Your task to perform on an android device: Go to sound settings Image 0: 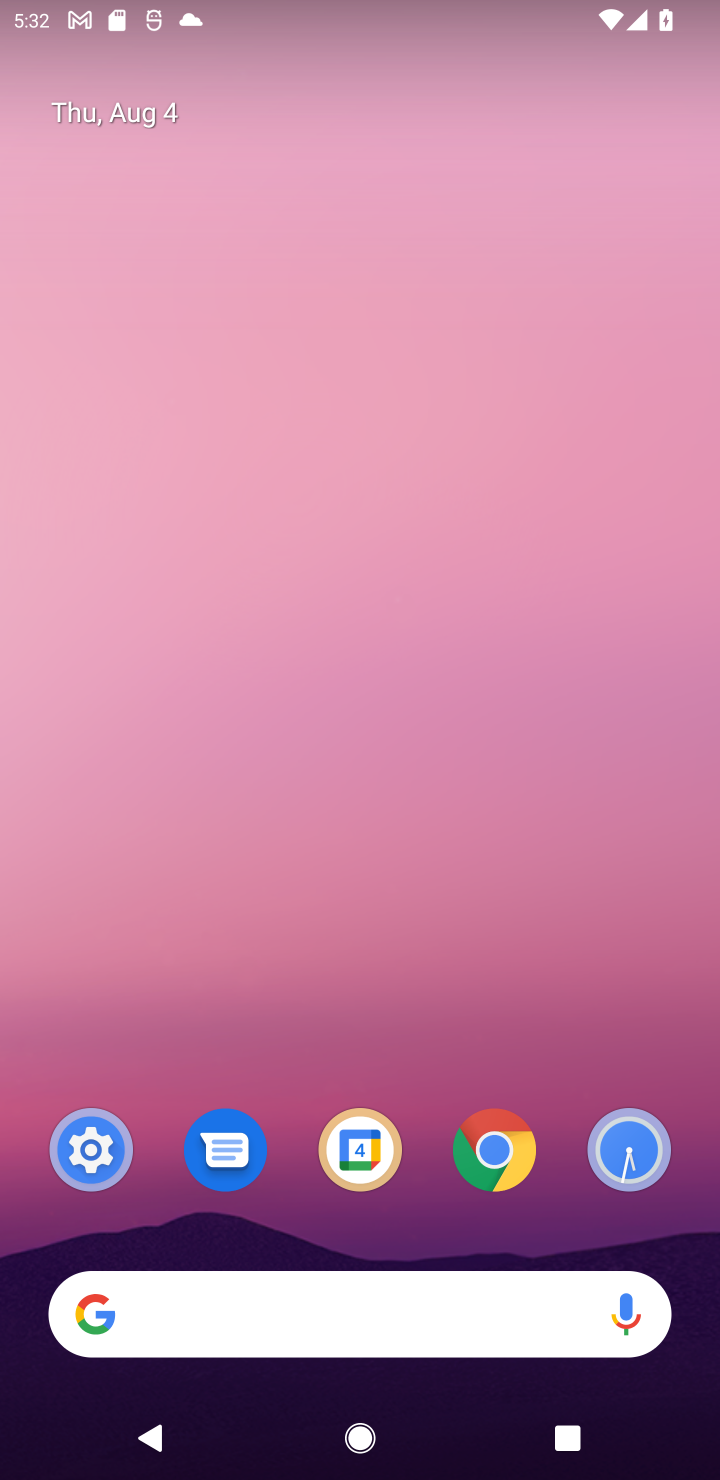
Step 0: drag from (290, 1232) to (373, 107)
Your task to perform on an android device: Go to sound settings Image 1: 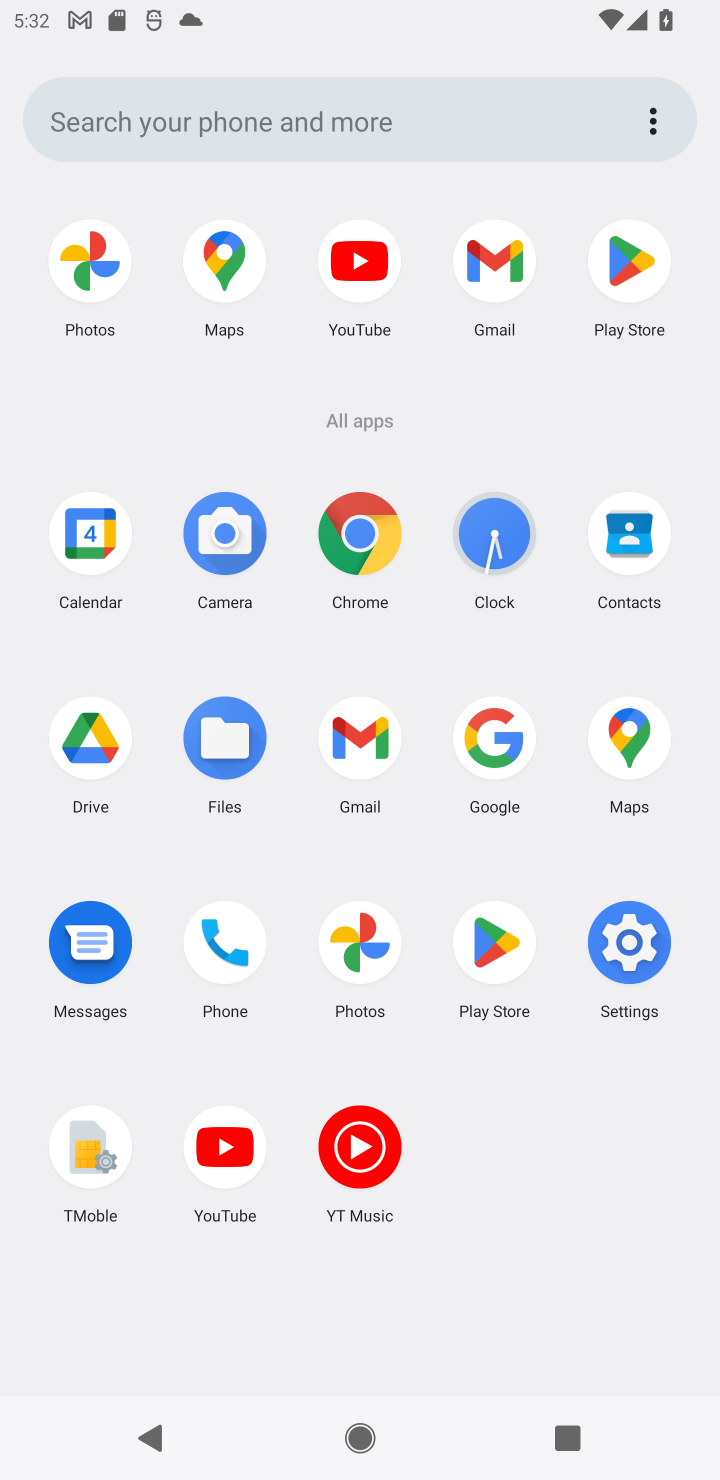
Step 1: click (621, 932)
Your task to perform on an android device: Go to sound settings Image 2: 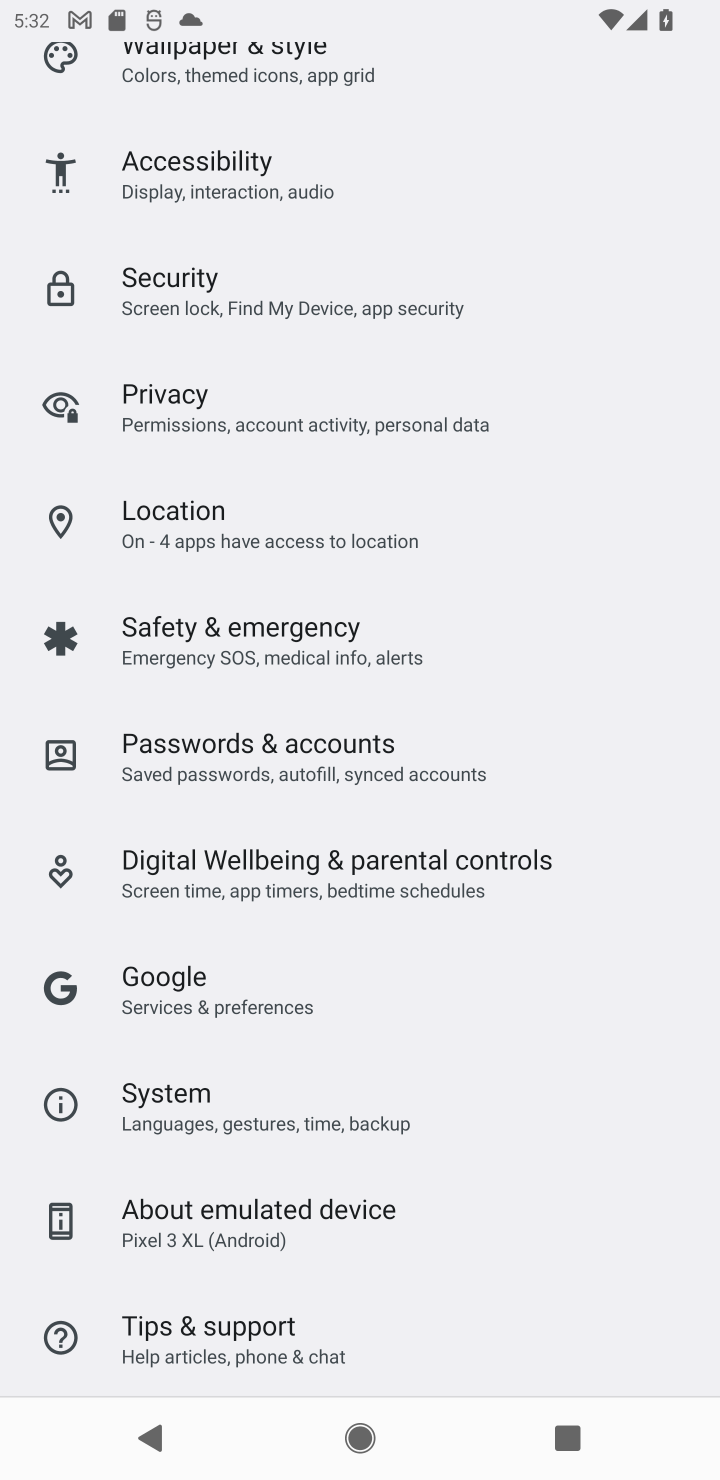
Step 2: drag from (296, 268) to (341, 1085)
Your task to perform on an android device: Go to sound settings Image 3: 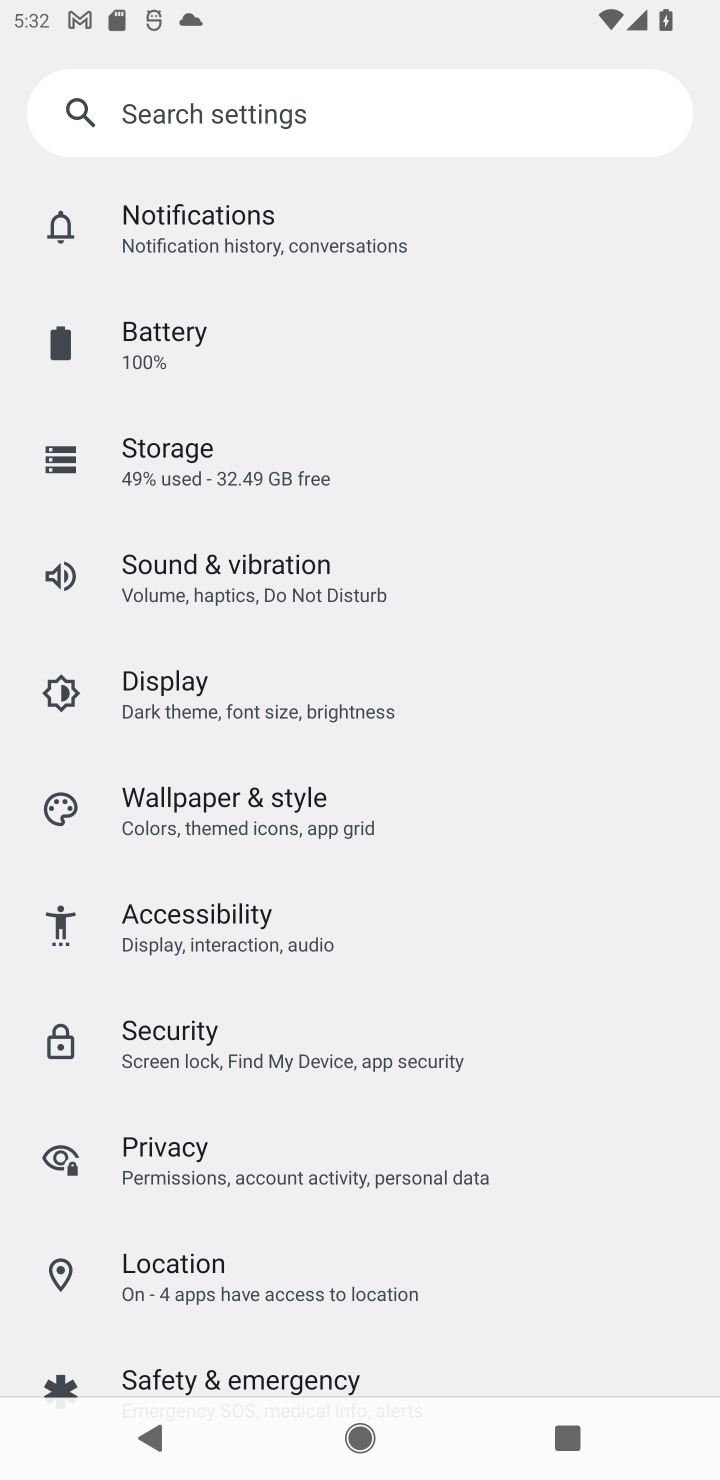
Step 3: click (268, 573)
Your task to perform on an android device: Go to sound settings Image 4: 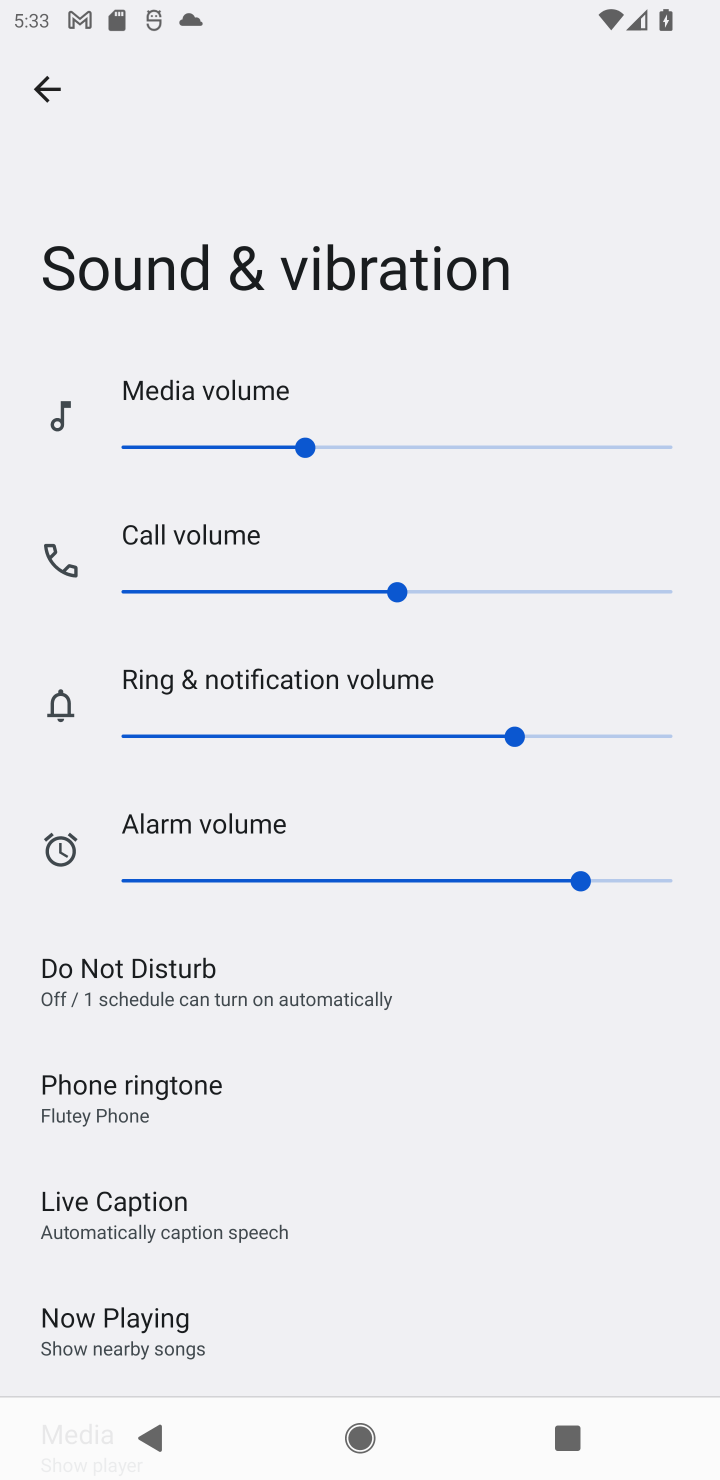
Step 4: drag from (288, 1012) to (342, 521)
Your task to perform on an android device: Go to sound settings Image 5: 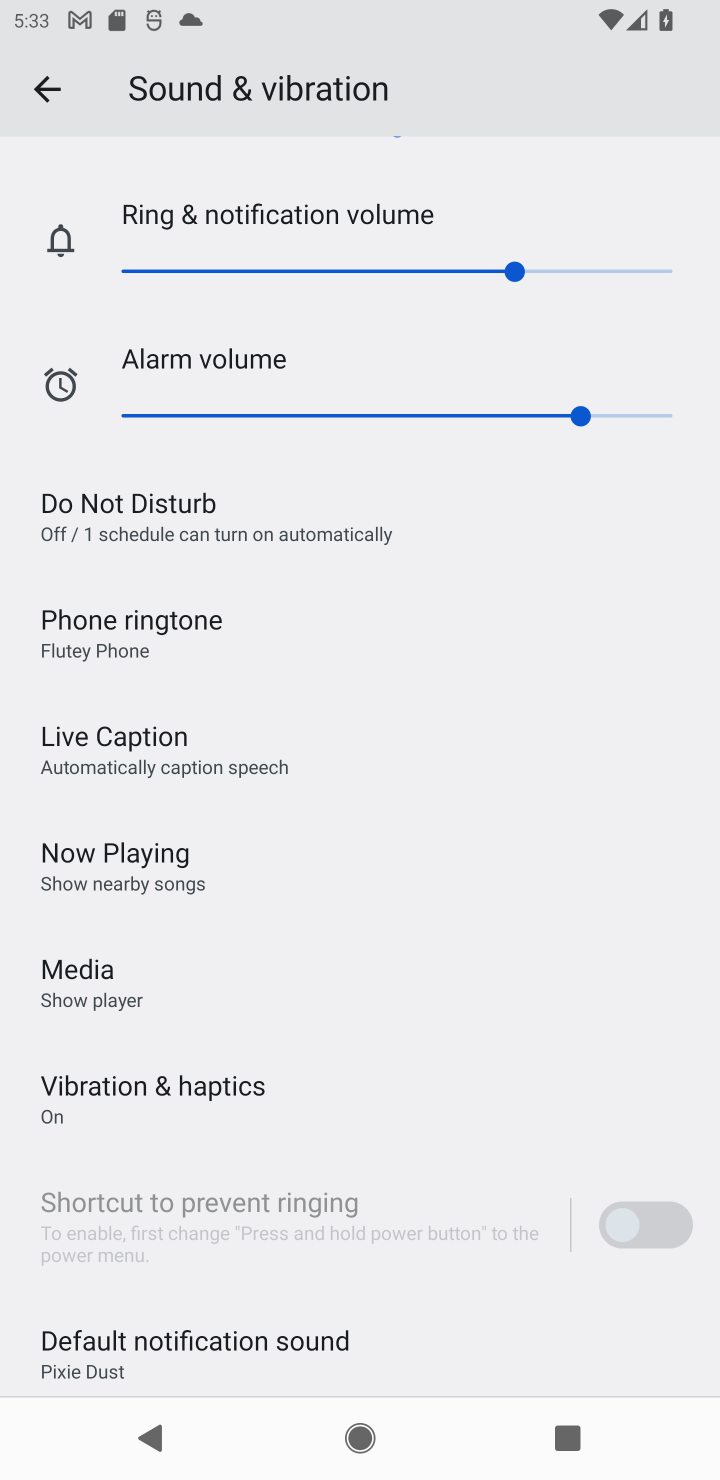
Step 5: drag from (310, 918) to (331, 390)
Your task to perform on an android device: Go to sound settings Image 6: 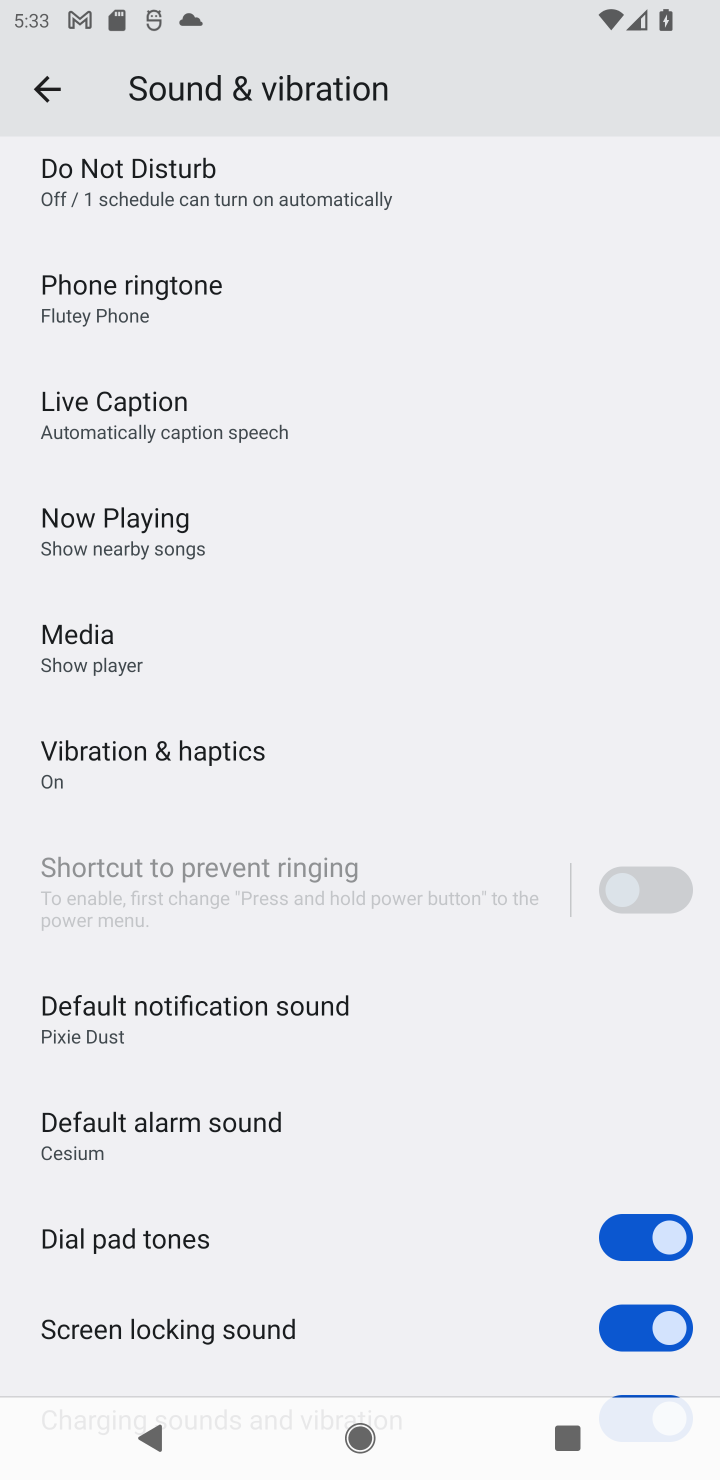
Step 6: click (327, 416)
Your task to perform on an android device: Go to sound settings Image 7: 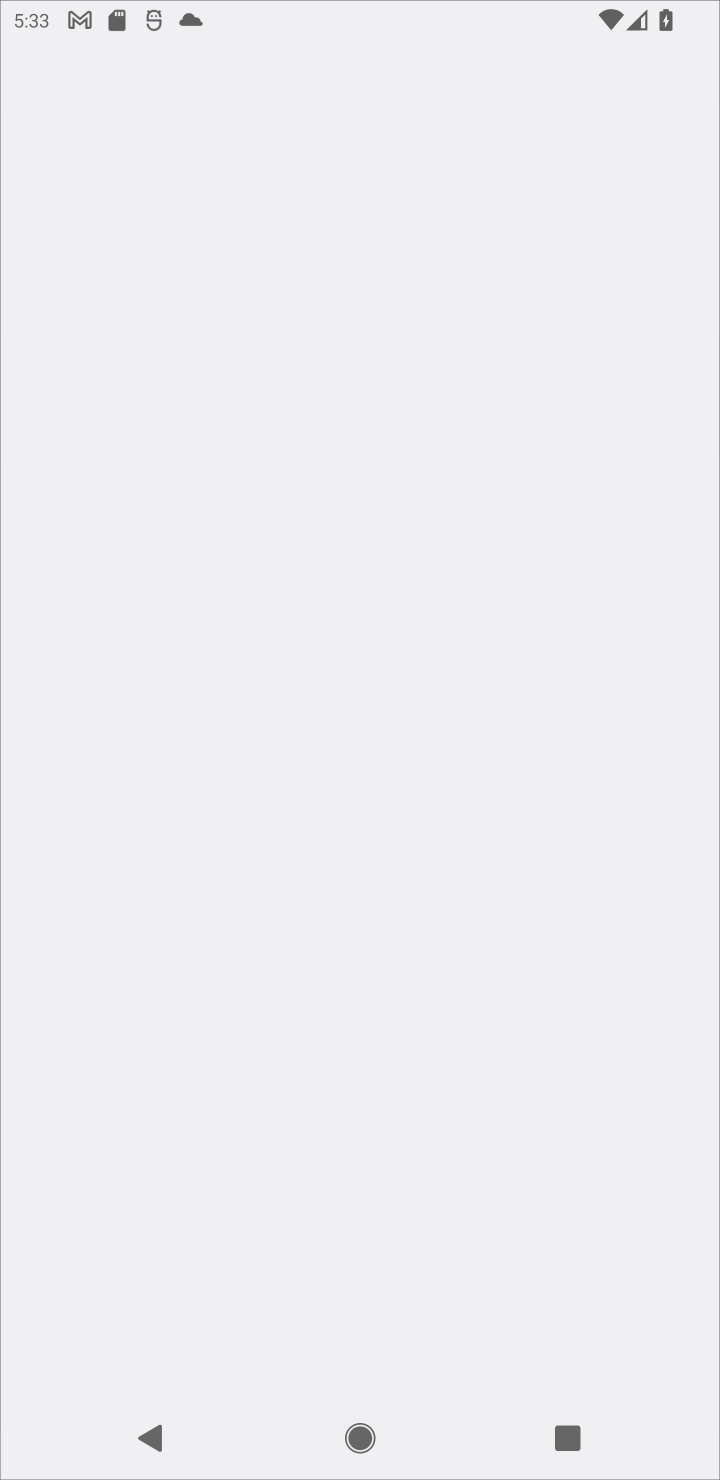
Step 7: task complete